Your task to perform on an android device: change notification settings in the gmail app Image 0: 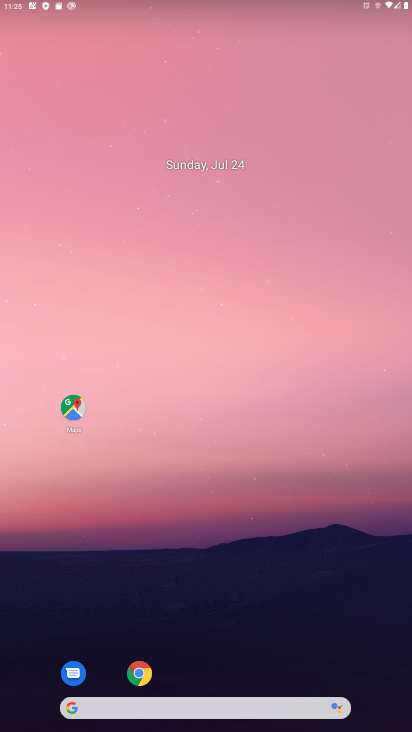
Step 0: click (307, 98)
Your task to perform on an android device: change notification settings in the gmail app Image 1: 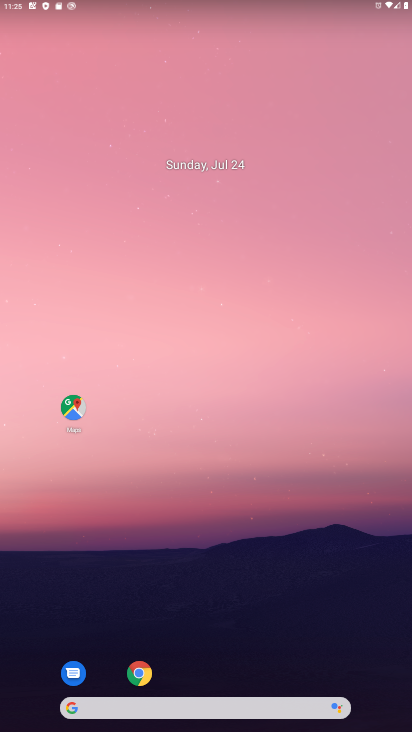
Step 1: drag from (332, 609) to (223, 77)
Your task to perform on an android device: change notification settings in the gmail app Image 2: 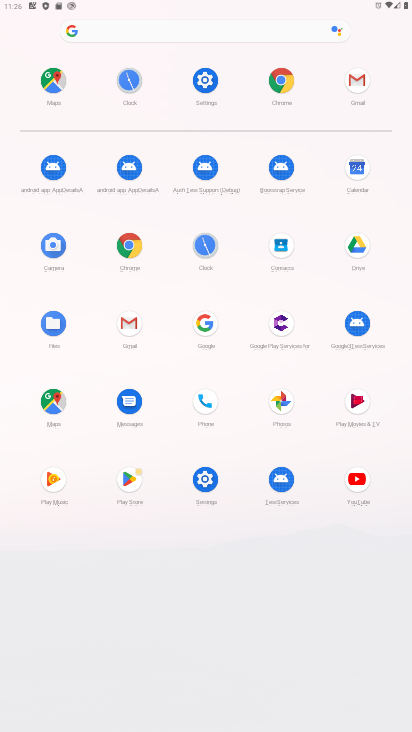
Step 2: click (132, 328)
Your task to perform on an android device: change notification settings in the gmail app Image 3: 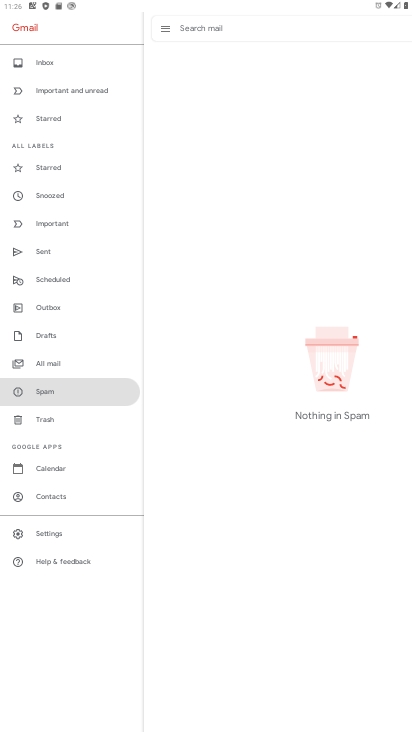
Step 3: click (46, 528)
Your task to perform on an android device: change notification settings in the gmail app Image 4: 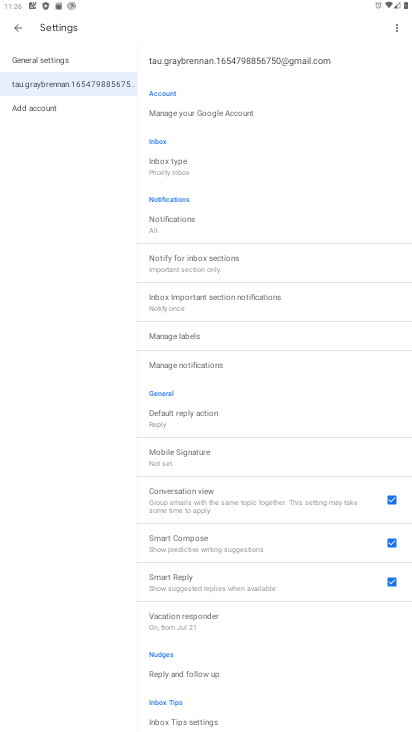
Step 4: click (206, 359)
Your task to perform on an android device: change notification settings in the gmail app Image 5: 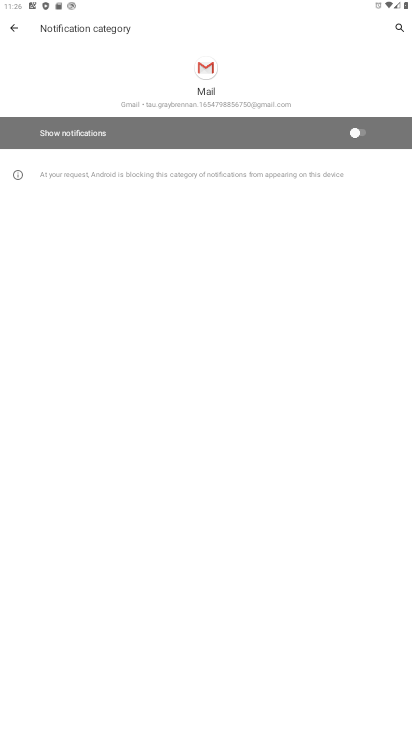
Step 5: click (368, 136)
Your task to perform on an android device: change notification settings in the gmail app Image 6: 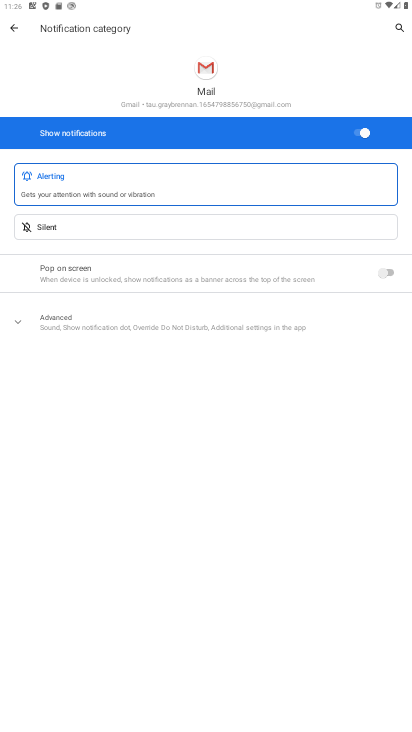
Step 6: task complete